Your task to perform on an android device: Open the calendar app, open the side menu, and click the "Day" option Image 0: 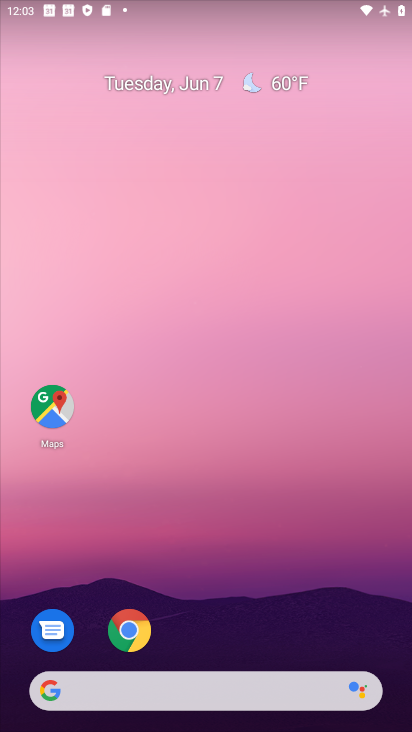
Step 0: drag from (368, 600) to (219, 78)
Your task to perform on an android device: Open the calendar app, open the side menu, and click the "Day" option Image 1: 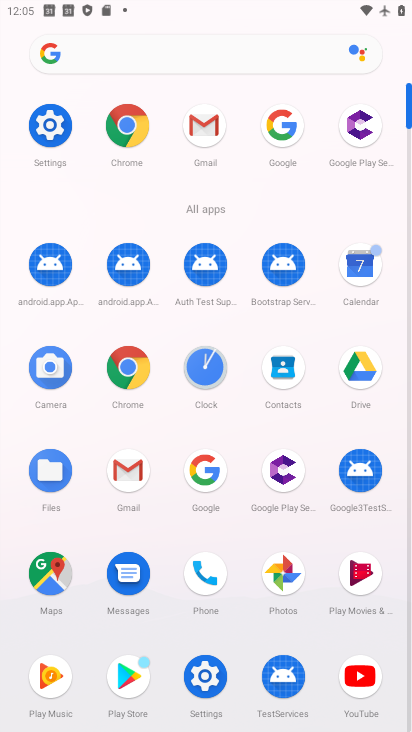
Step 1: click (354, 271)
Your task to perform on an android device: Open the calendar app, open the side menu, and click the "Day" option Image 2: 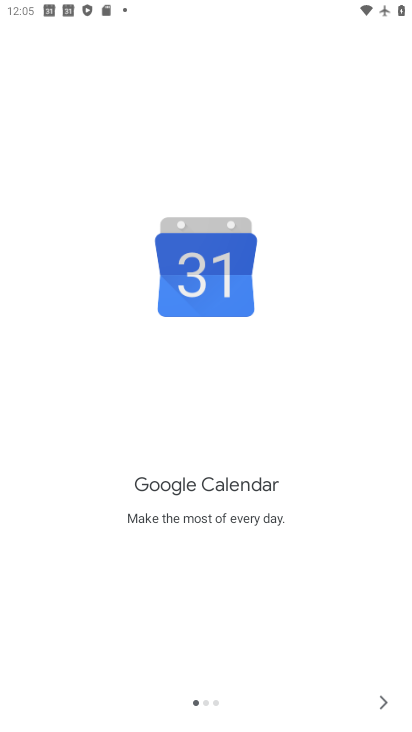
Step 2: click (383, 689)
Your task to perform on an android device: Open the calendar app, open the side menu, and click the "Day" option Image 3: 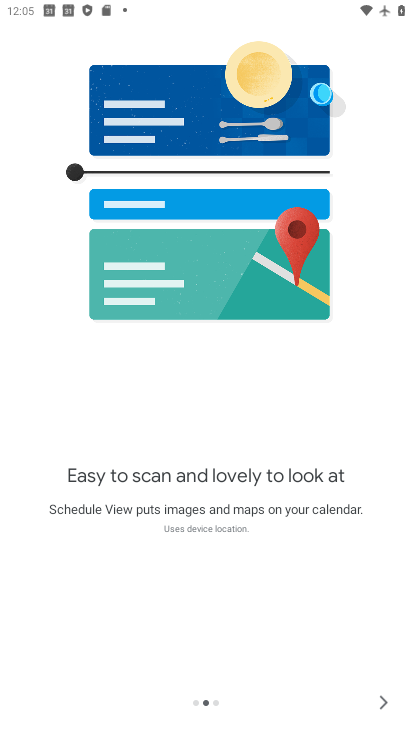
Step 3: click (373, 706)
Your task to perform on an android device: Open the calendar app, open the side menu, and click the "Day" option Image 4: 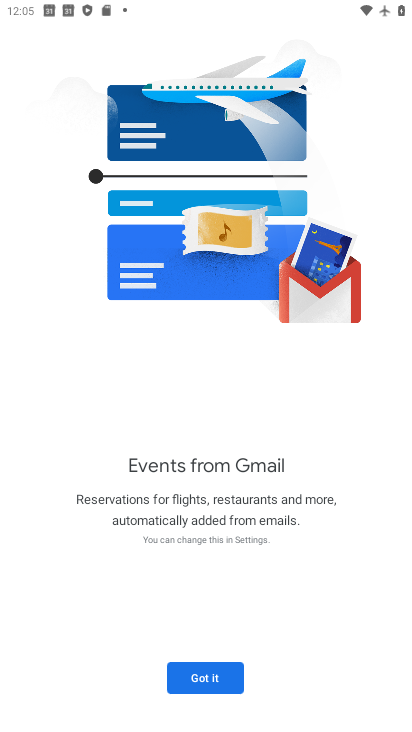
Step 4: click (199, 685)
Your task to perform on an android device: Open the calendar app, open the side menu, and click the "Day" option Image 5: 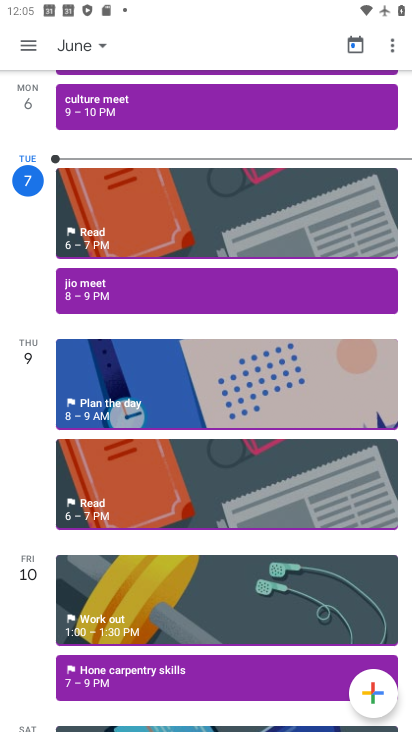
Step 5: click (43, 44)
Your task to perform on an android device: Open the calendar app, open the side menu, and click the "Day" option Image 6: 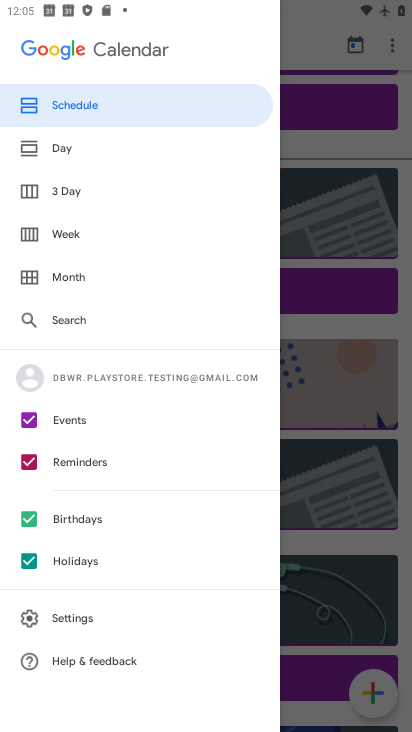
Step 6: click (77, 145)
Your task to perform on an android device: Open the calendar app, open the side menu, and click the "Day" option Image 7: 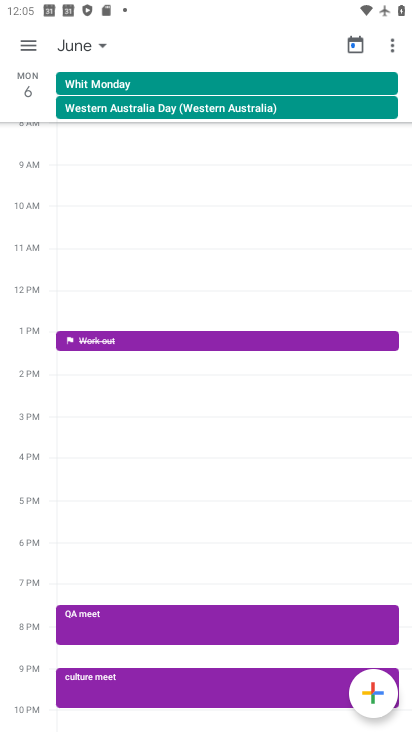
Step 7: task complete